Your task to perform on an android device: Open the stopwatch Image 0: 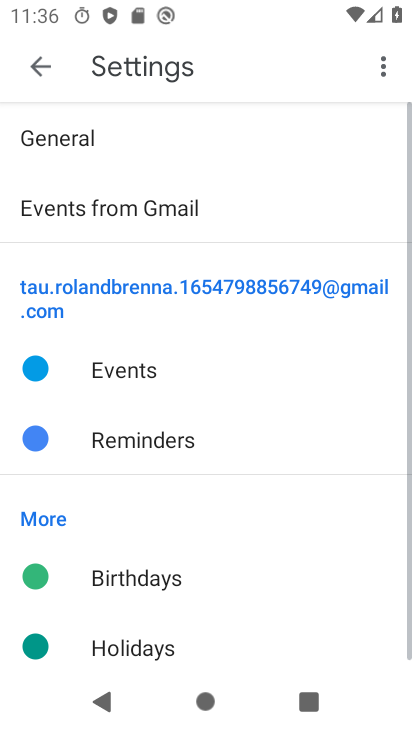
Step 0: press home button
Your task to perform on an android device: Open the stopwatch Image 1: 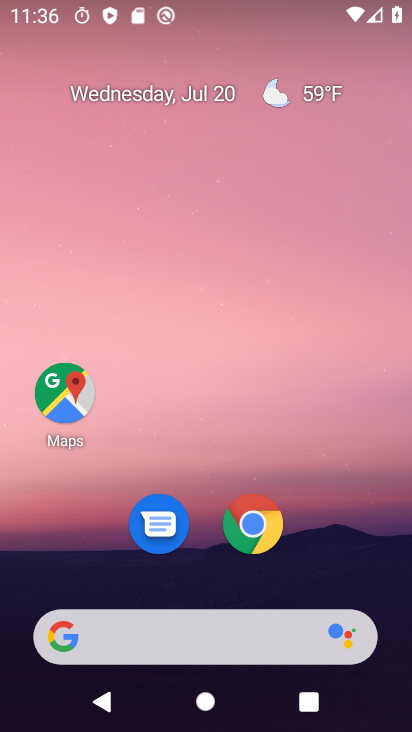
Step 1: drag from (224, 618) to (342, 73)
Your task to perform on an android device: Open the stopwatch Image 2: 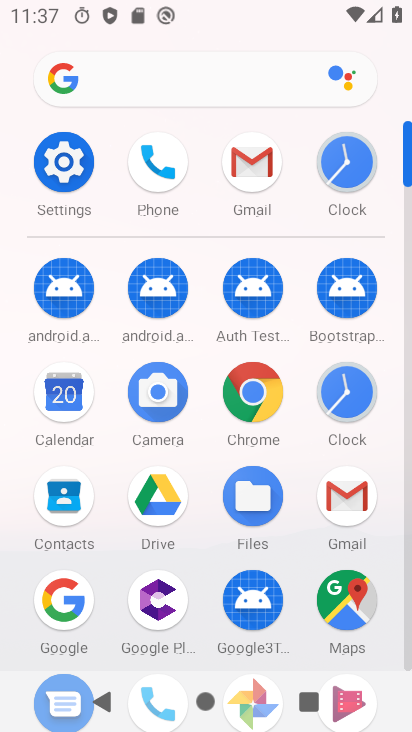
Step 2: click (337, 175)
Your task to perform on an android device: Open the stopwatch Image 3: 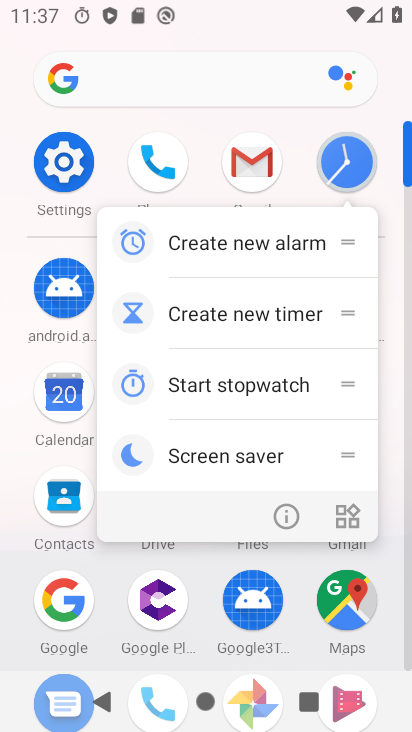
Step 3: click (343, 165)
Your task to perform on an android device: Open the stopwatch Image 4: 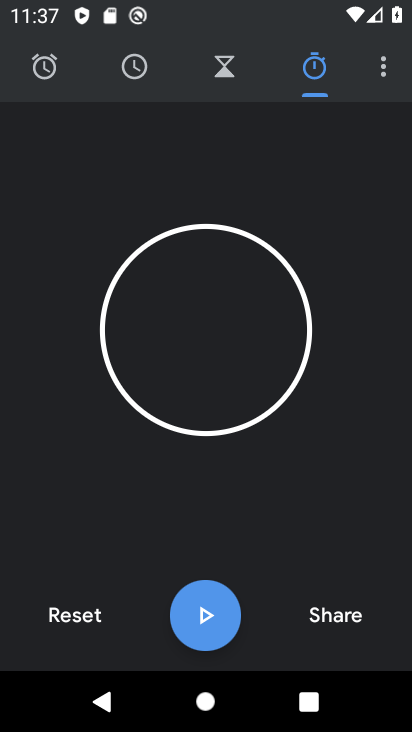
Step 4: task complete